Your task to perform on an android device: change notification settings in the gmail app Image 0: 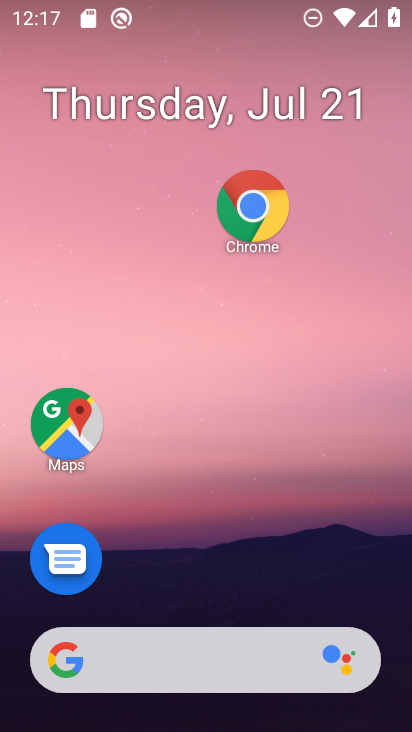
Step 0: drag from (148, 525) to (222, 11)
Your task to perform on an android device: change notification settings in the gmail app Image 1: 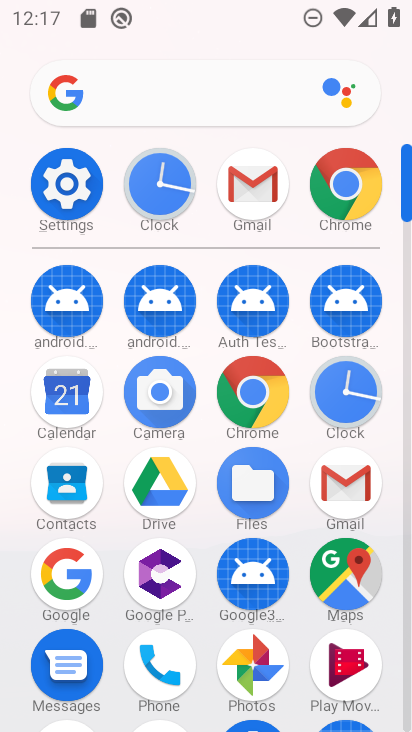
Step 1: click (356, 504)
Your task to perform on an android device: change notification settings in the gmail app Image 2: 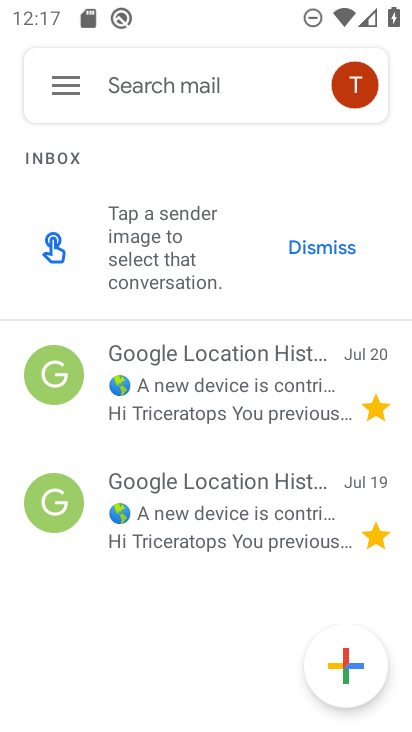
Step 2: click (67, 94)
Your task to perform on an android device: change notification settings in the gmail app Image 3: 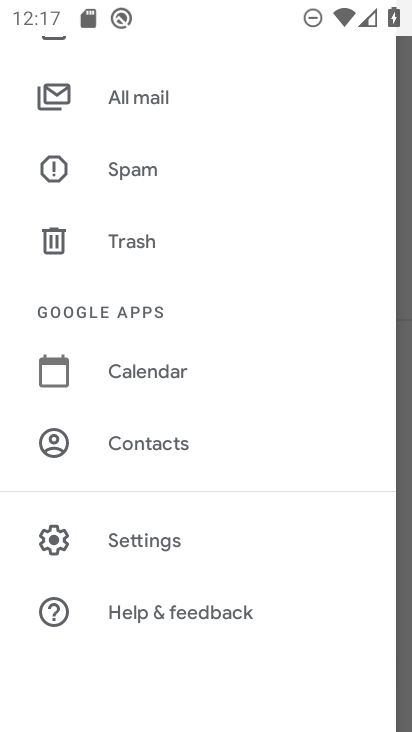
Step 3: click (159, 541)
Your task to perform on an android device: change notification settings in the gmail app Image 4: 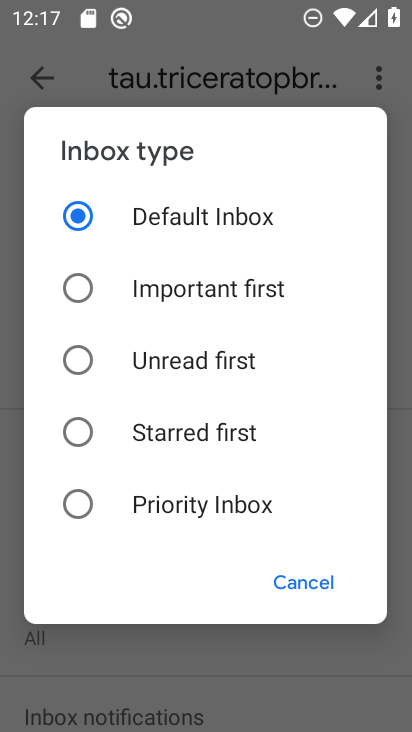
Step 4: click (309, 584)
Your task to perform on an android device: change notification settings in the gmail app Image 5: 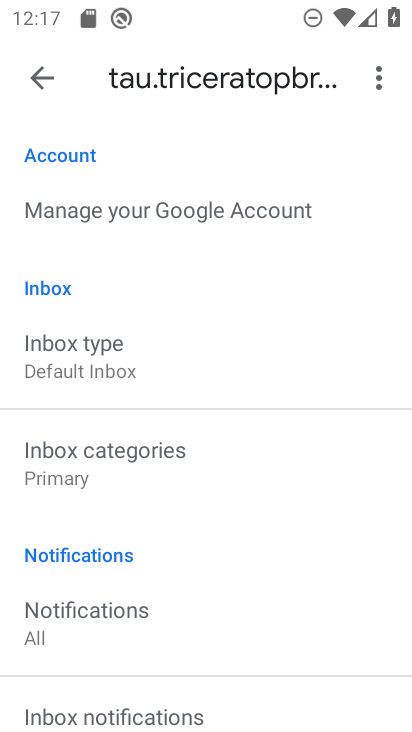
Step 5: click (49, 98)
Your task to perform on an android device: change notification settings in the gmail app Image 6: 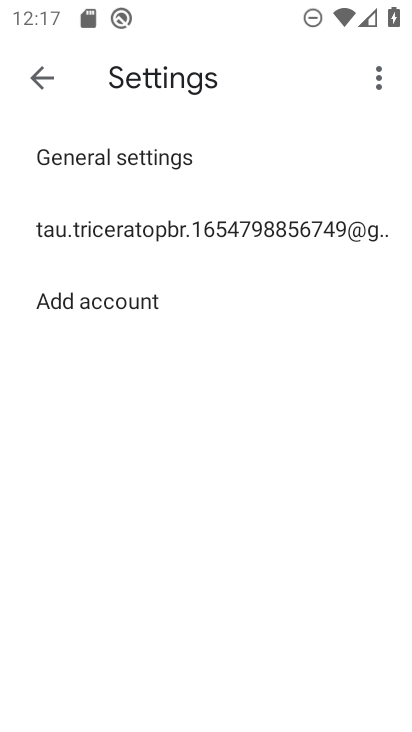
Step 6: click (117, 152)
Your task to perform on an android device: change notification settings in the gmail app Image 7: 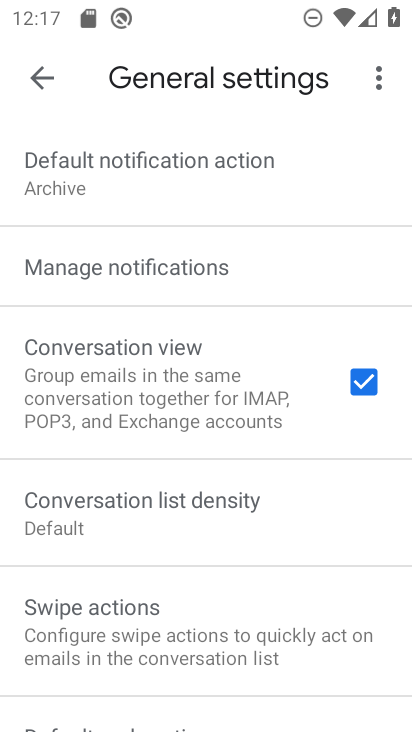
Step 7: click (144, 268)
Your task to perform on an android device: change notification settings in the gmail app Image 8: 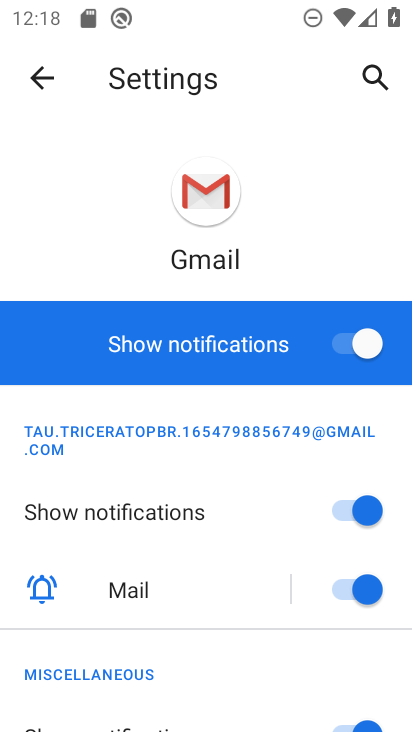
Step 8: click (226, 345)
Your task to perform on an android device: change notification settings in the gmail app Image 9: 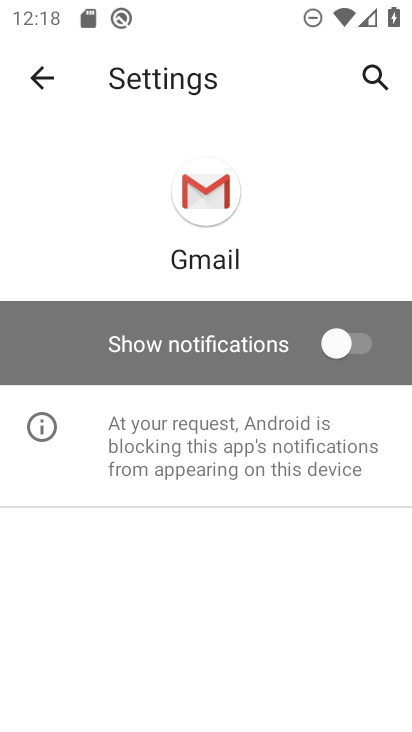
Step 9: task complete